Your task to perform on an android device: Add apple airpods to the cart on walmart Image 0: 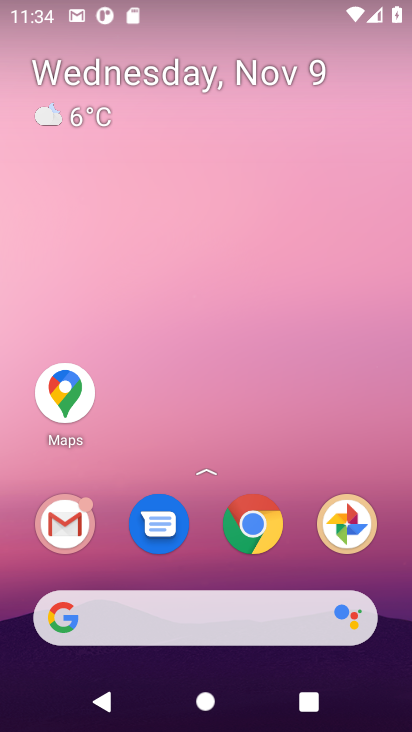
Step 0: click (246, 531)
Your task to perform on an android device: Add apple airpods to the cart on walmart Image 1: 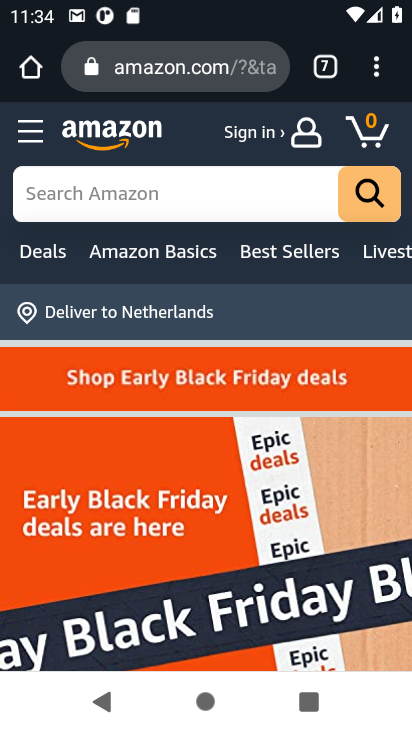
Step 1: click (329, 63)
Your task to perform on an android device: Add apple airpods to the cart on walmart Image 2: 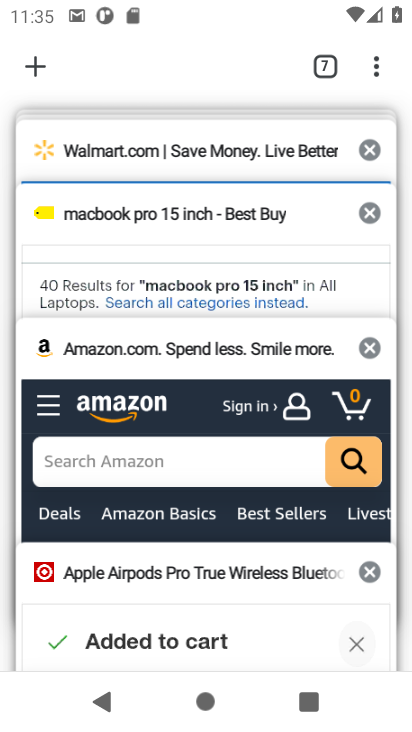
Step 2: click (129, 150)
Your task to perform on an android device: Add apple airpods to the cart on walmart Image 3: 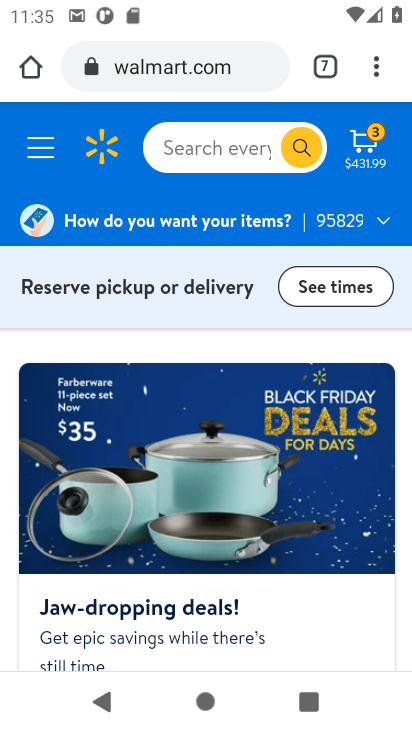
Step 3: click (196, 134)
Your task to perform on an android device: Add apple airpods to the cart on walmart Image 4: 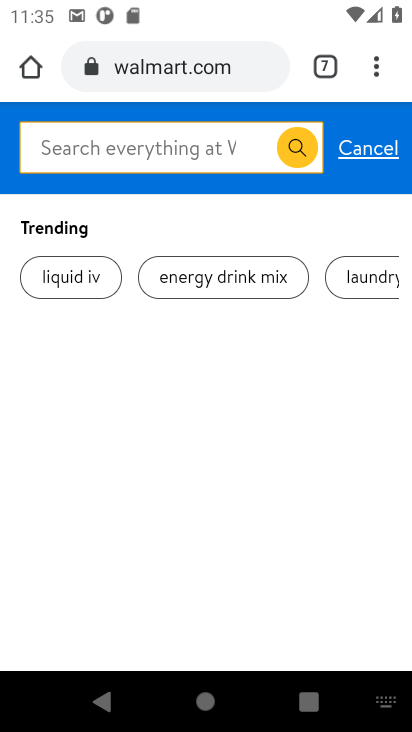
Step 4: type "apple airpods"
Your task to perform on an android device: Add apple airpods to the cart on walmart Image 5: 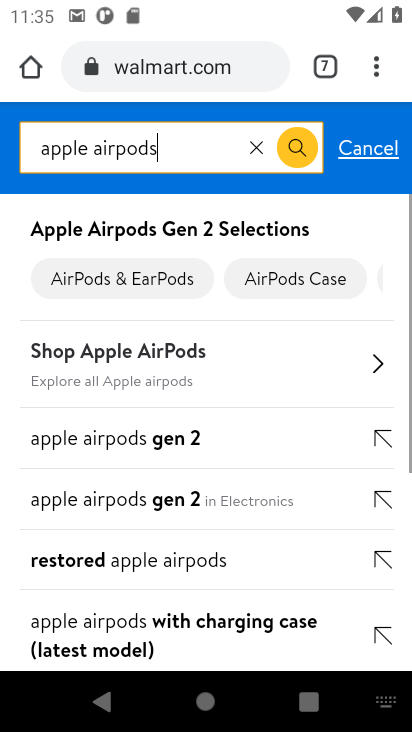
Step 5: click (67, 343)
Your task to perform on an android device: Add apple airpods to the cart on walmart Image 6: 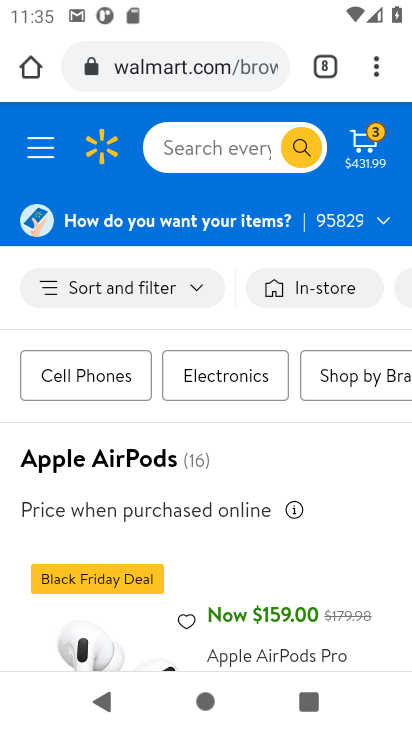
Step 6: drag from (198, 649) to (400, 435)
Your task to perform on an android device: Add apple airpods to the cart on walmart Image 7: 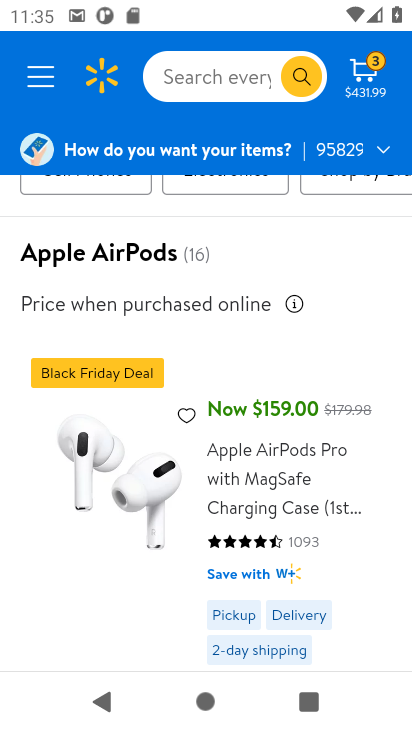
Step 7: drag from (316, 526) to (370, 158)
Your task to perform on an android device: Add apple airpods to the cart on walmart Image 8: 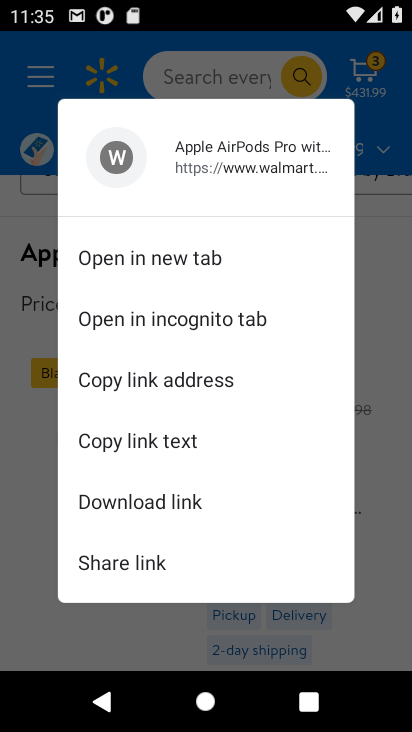
Step 8: click (374, 339)
Your task to perform on an android device: Add apple airpods to the cart on walmart Image 9: 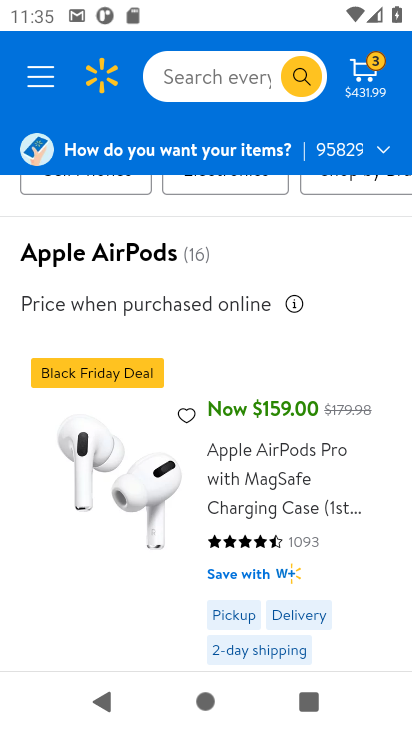
Step 9: drag from (370, 549) to (261, 121)
Your task to perform on an android device: Add apple airpods to the cart on walmart Image 10: 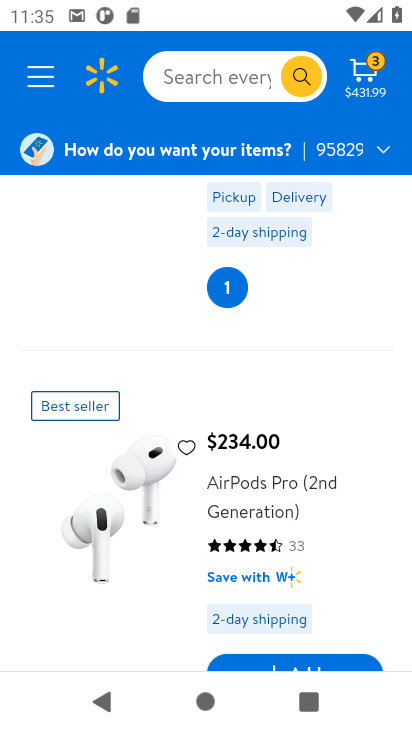
Step 10: drag from (270, 393) to (320, 92)
Your task to perform on an android device: Add apple airpods to the cart on walmart Image 11: 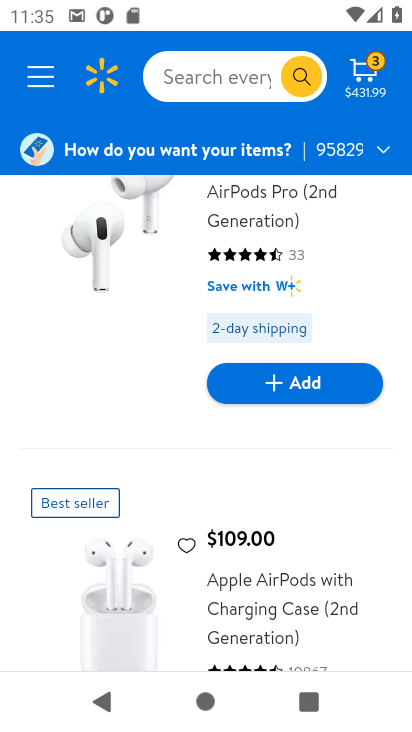
Step 11: click (262, 384)
Your task to perform on an android device: Add apple airpods to the cart on walmart Image 12: 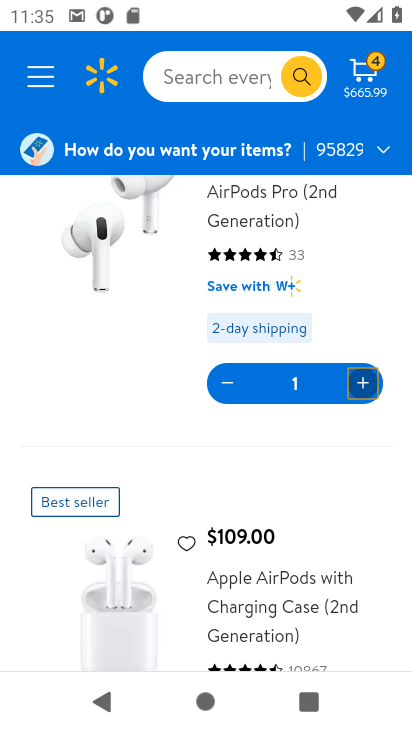
Step 12: task complete